Your task to perform on an android device: What is the recent news? Image 0: 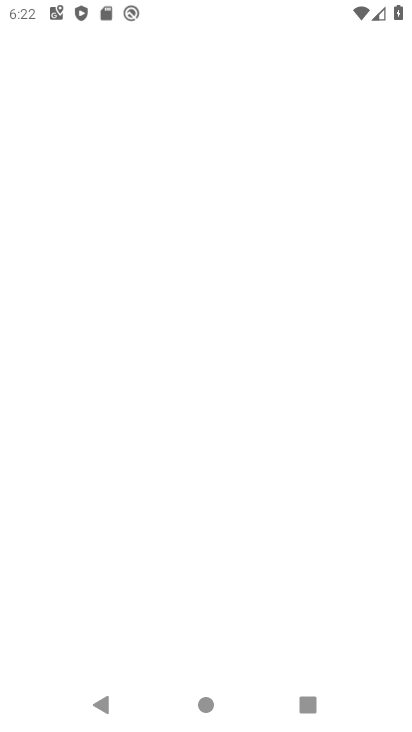
Step 0: press home button
Your task to perform on an android device: What is the recent news? Image 1: 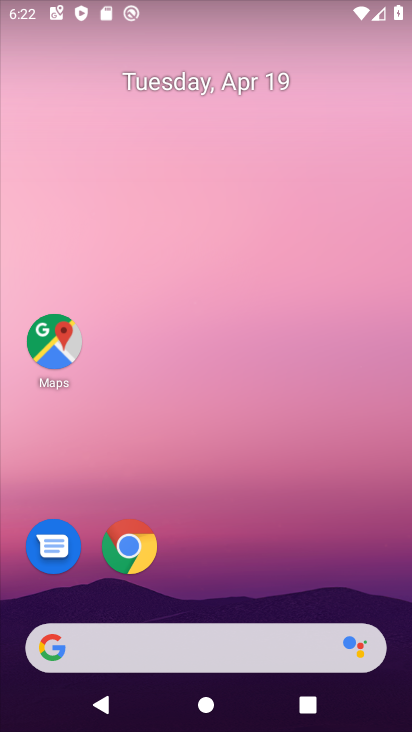
Step 1: drag from (245, 588) to (290, 55)
Your task to perform on an android device: What is the recent news? Image 2: 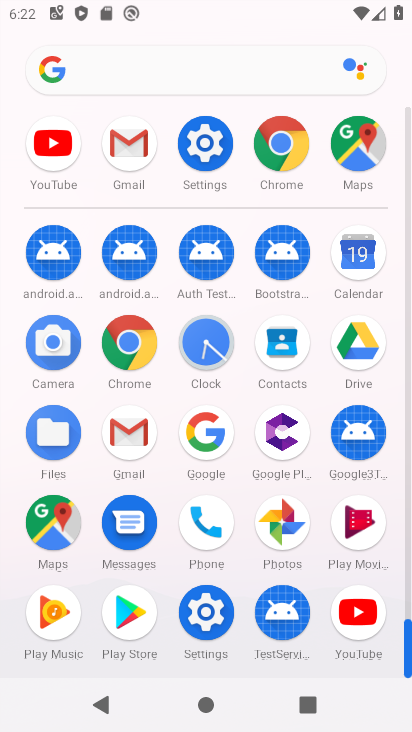
Step 2: click (127, 355)
Your task to perform on an android device: What is the recent news? Image 3: 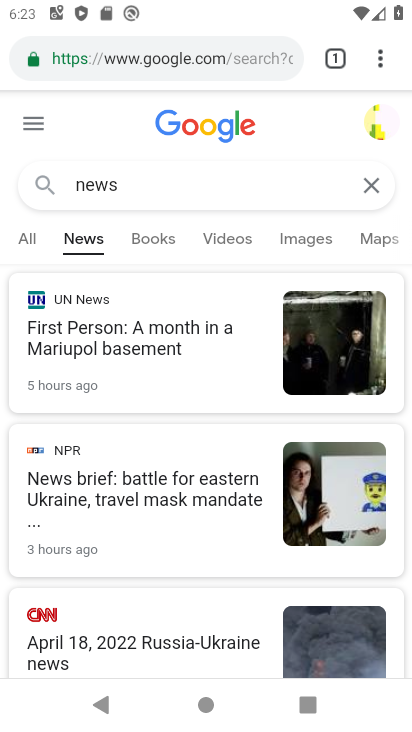
Step 3: task complete